Your task to perform on an android device: Open calendar and show me the first week of next month Image 0: 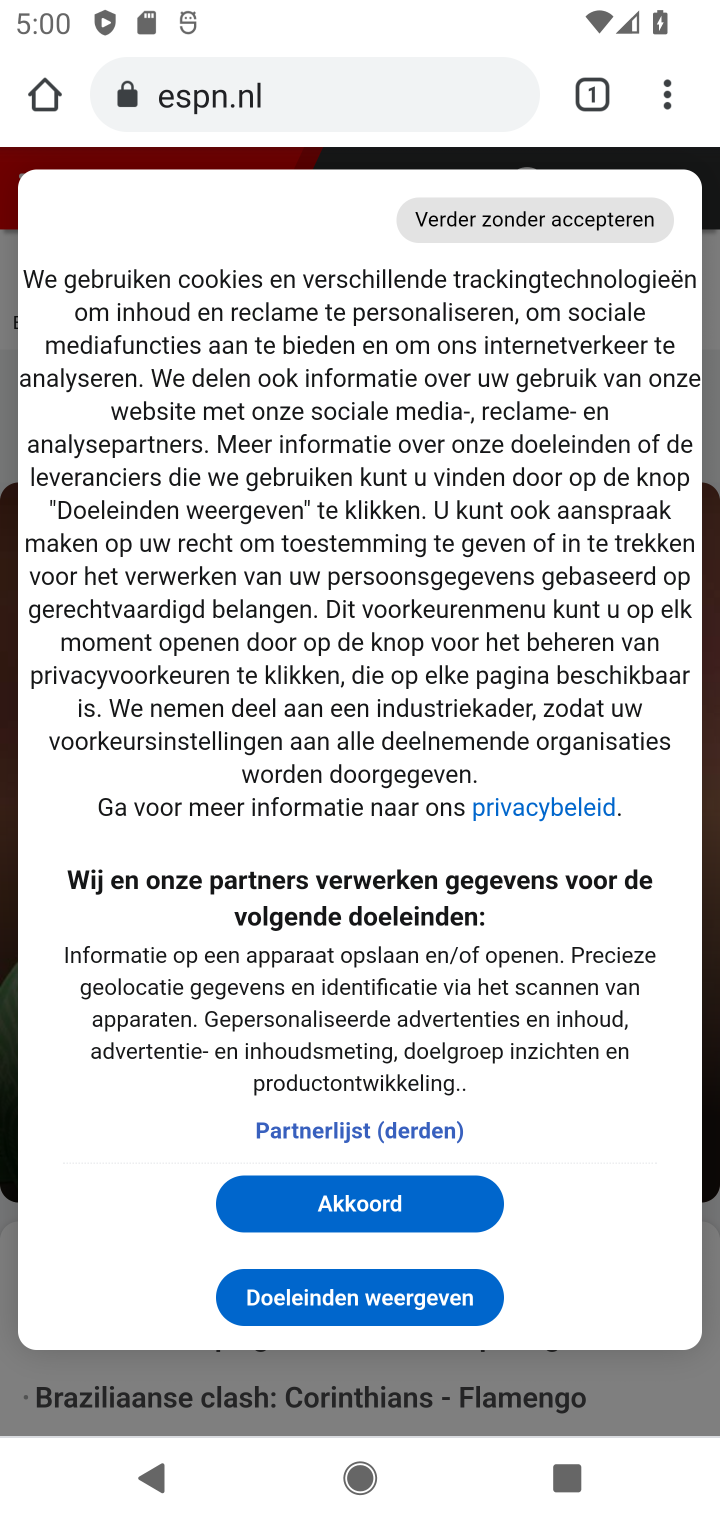
Step 0: press home button
Your task to perform on an android device: Open calendar and show me the first week of next month Image 1: 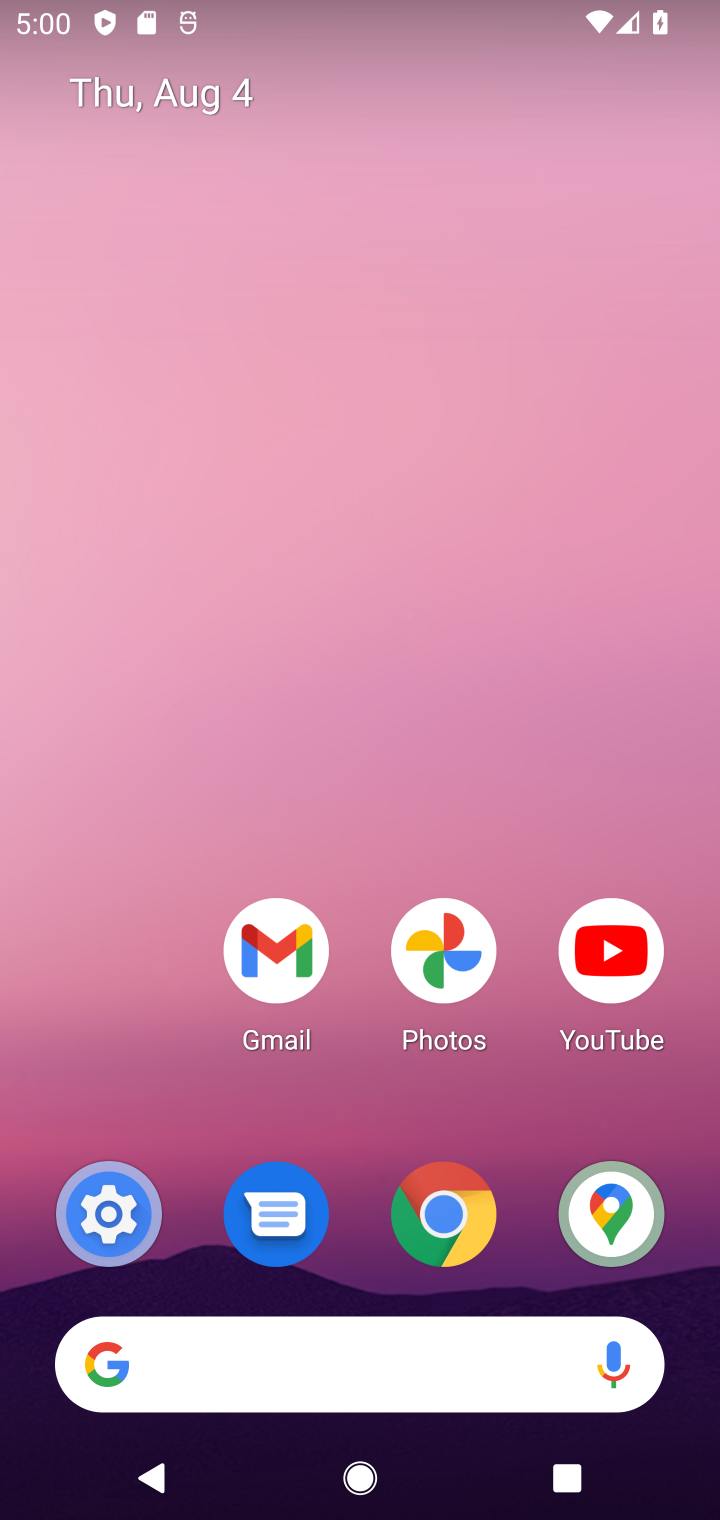
Step 1: drag from (543, 1087) to (494, 303)
Your task to perform on an android device: Open calendar and show me the first week of next month Image 2: 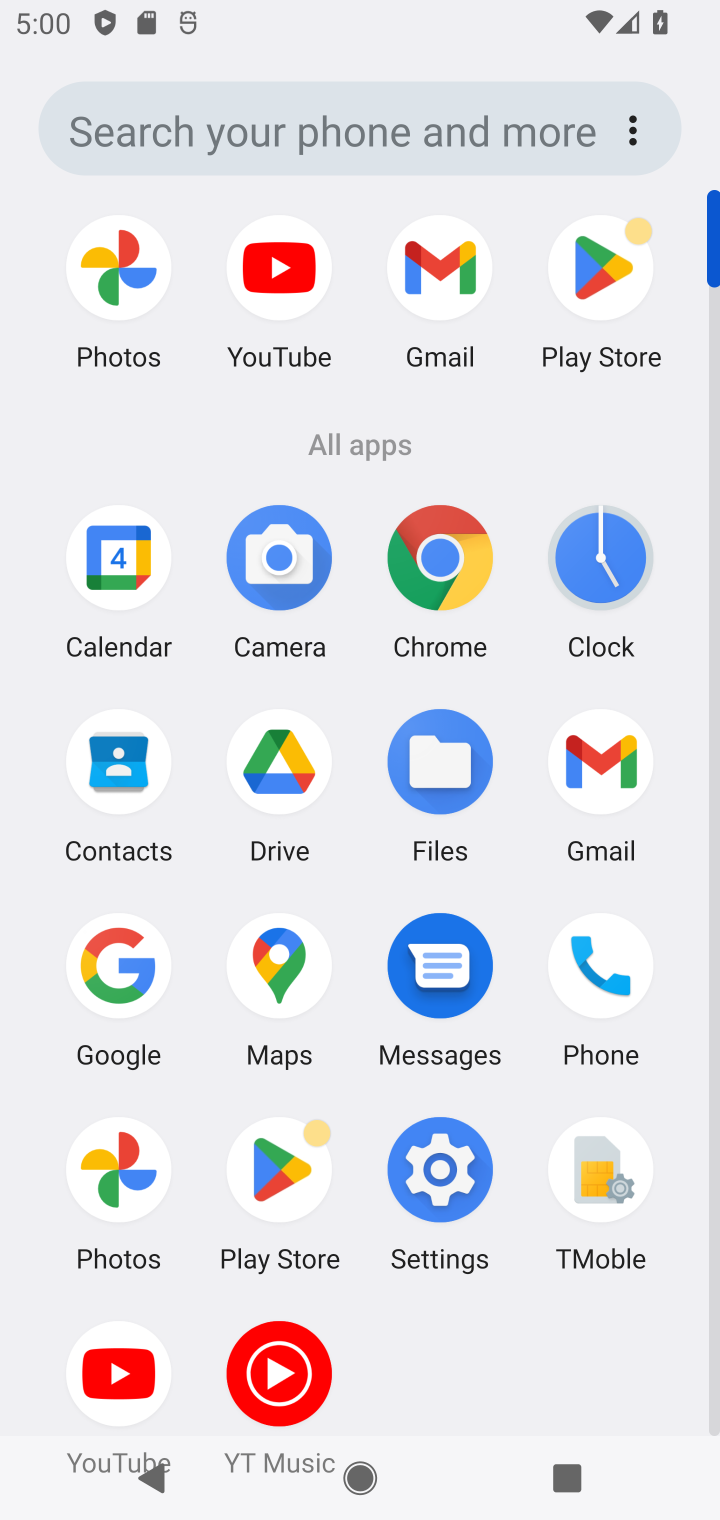
Step 2: click (133, 594)
Your task to perform on an android device: Open calendar and show me the first week of next month Image 3: 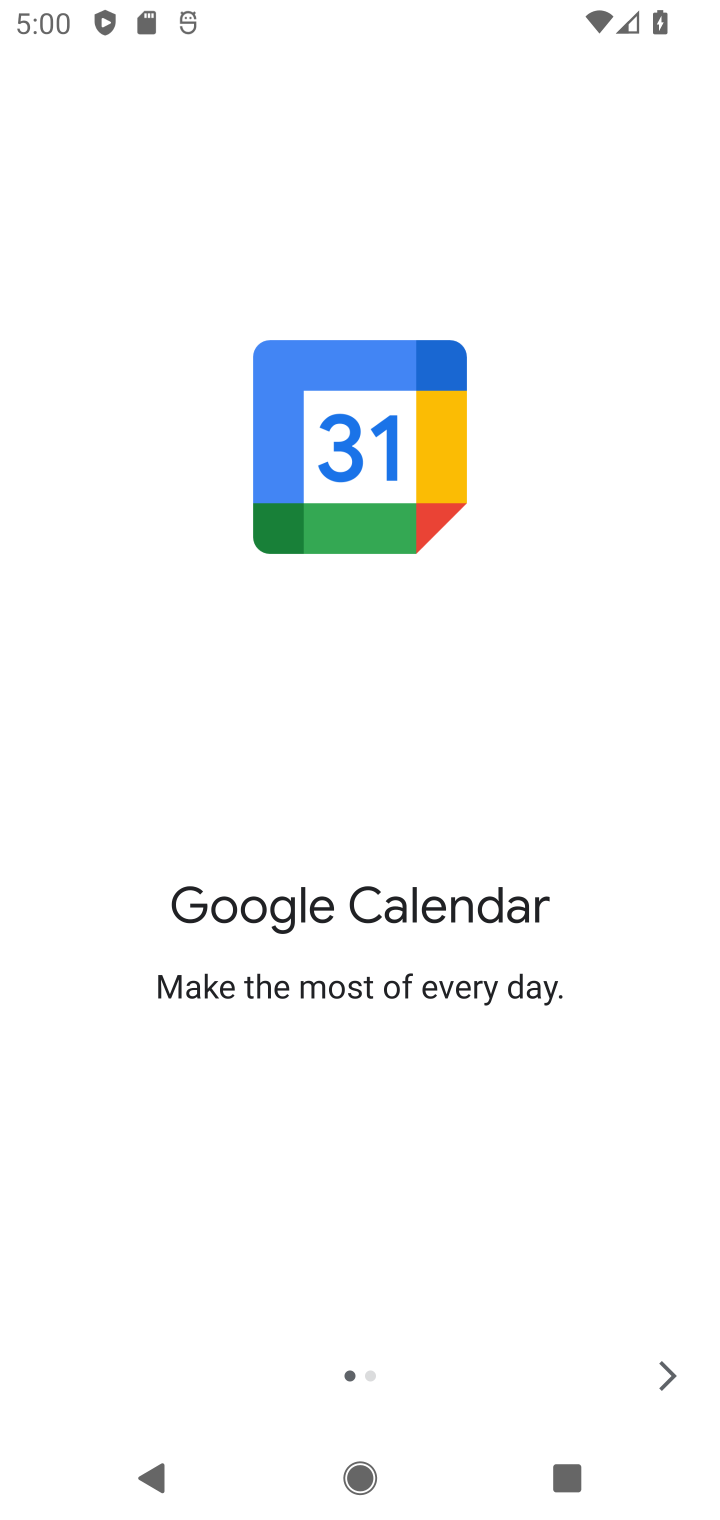
Step 3: click (647, 1380)
Your task to perform on an android device: Open calendar and show me the first week of next month Image 4: 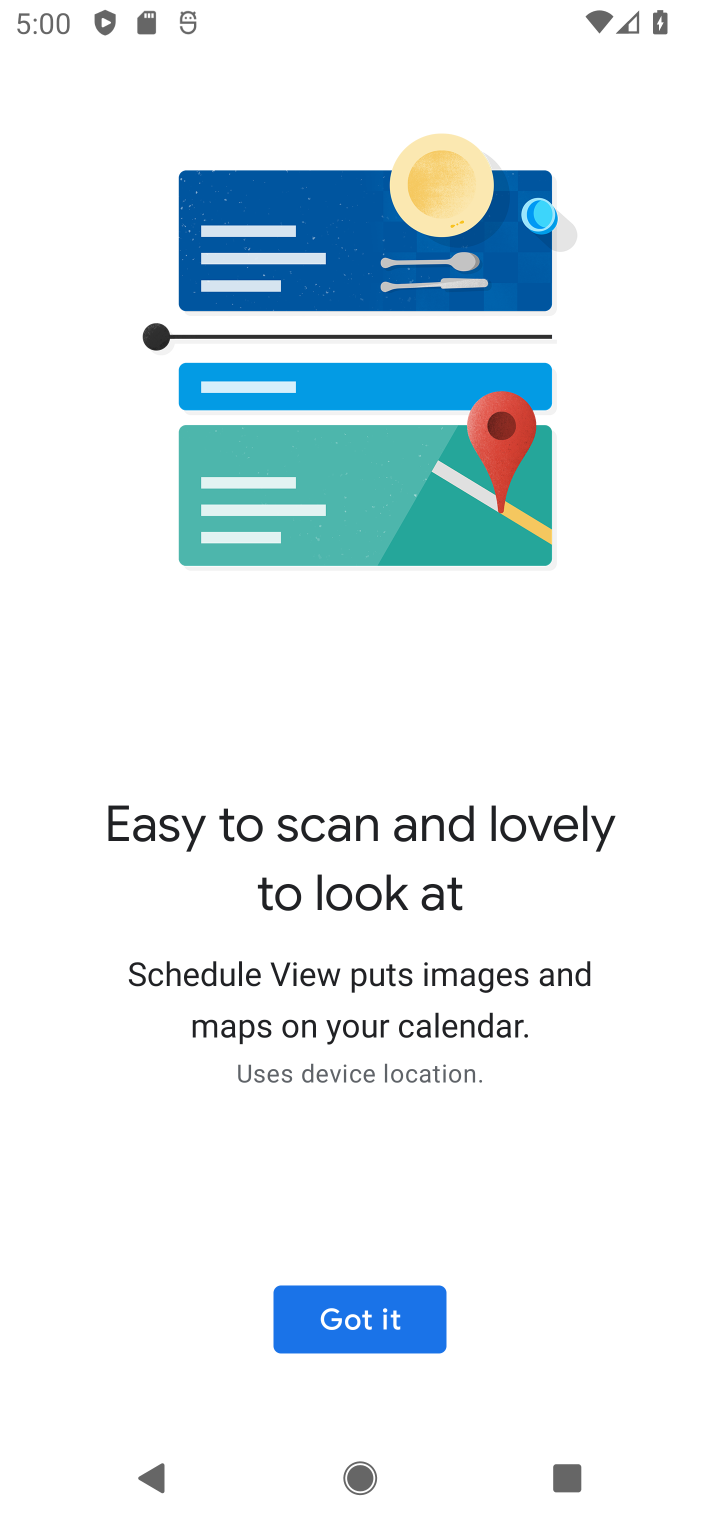
Step 4: click (392, 1338)
Your task to perform on an android device: Open calendar and show me the first week of next month Image 5: 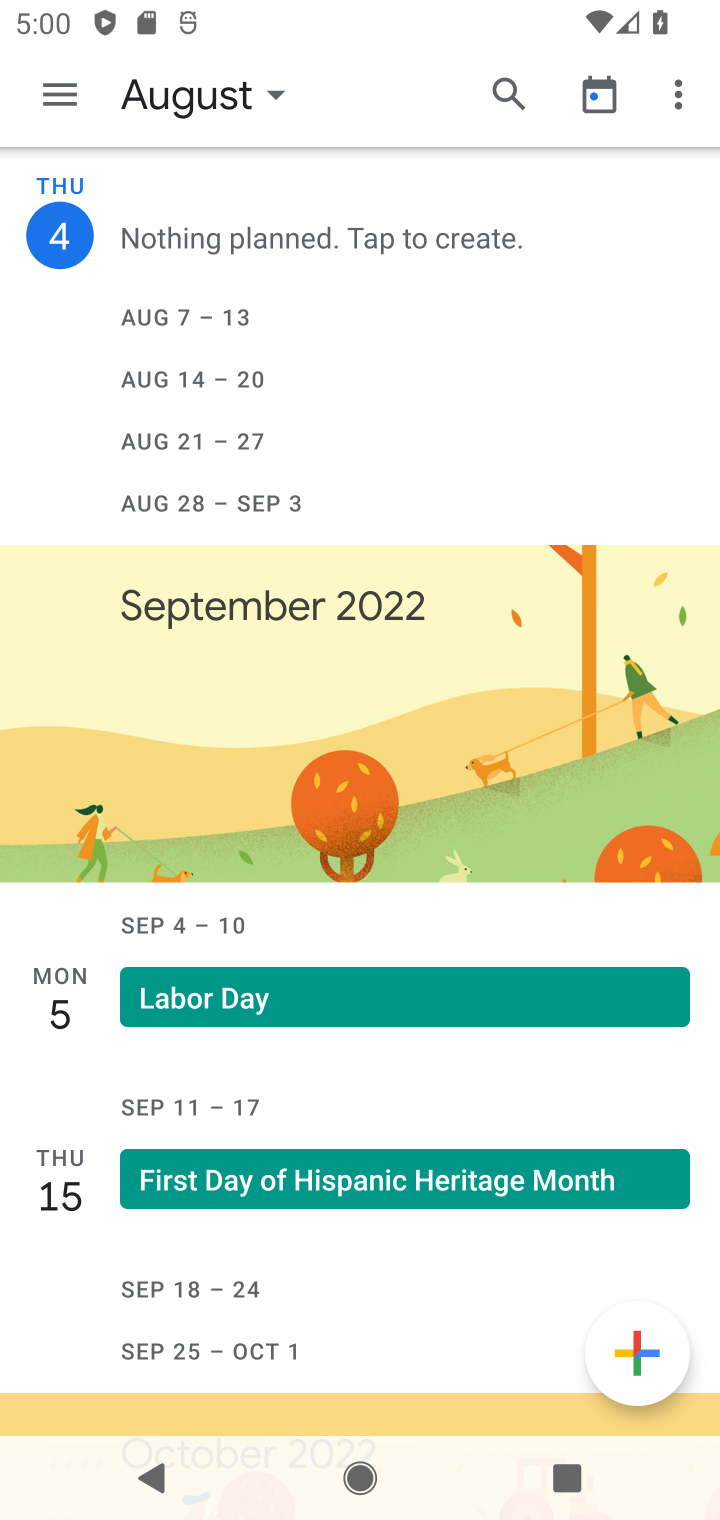
Step 5: click (56, 105)
Your task to perform on an android device: Open calendar and show me the first week of next month Image 6: 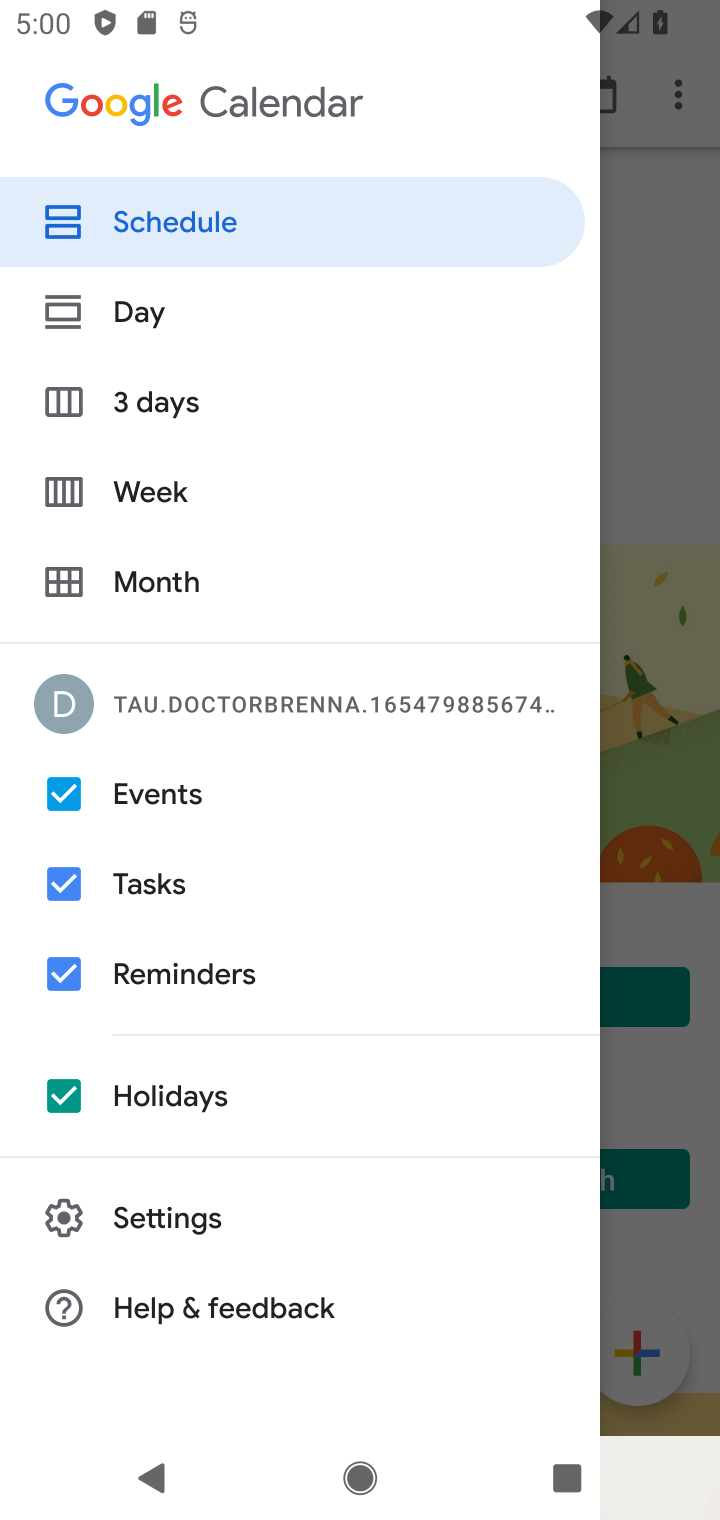
Step 6: click (182, 474)
Your task to perform on an android device: Open calendar and show me the first week of next month Image 7: 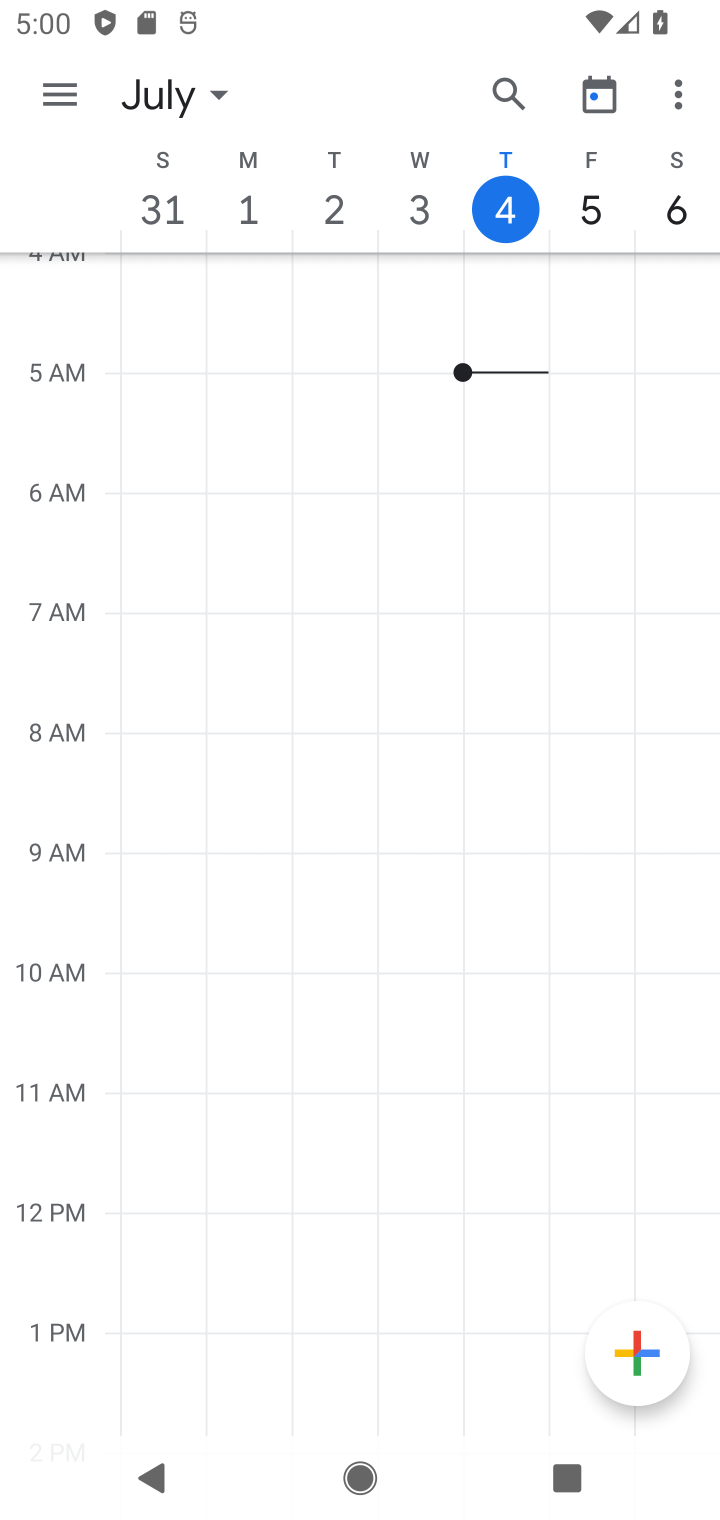
Step 7: click (205, 102)
Your task to perform on an android device: Open calendar and show me the first week of next month Image 8: 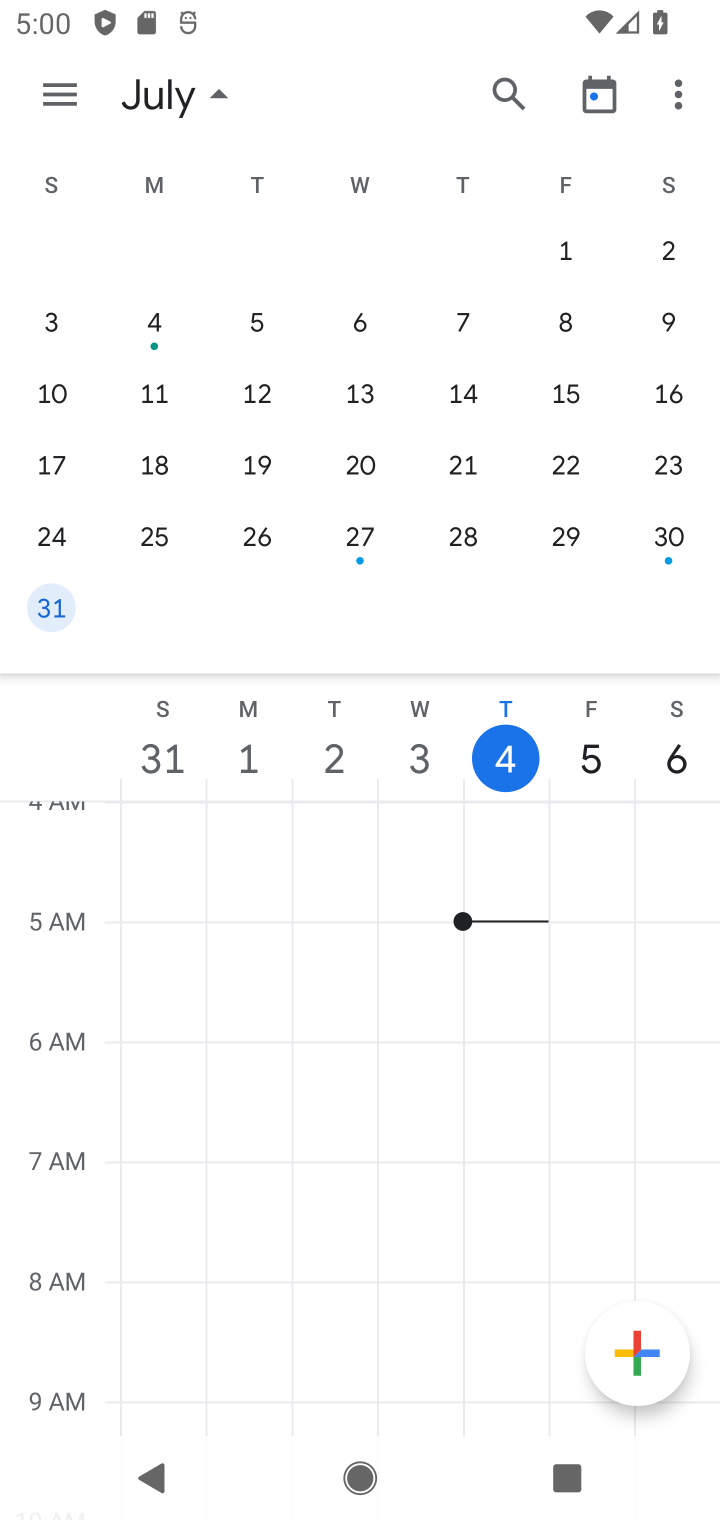
Step 8: drag from (696, 498) to (34, 403)
Your task to perform on an android device: Open calendar and show me the first week of next month Image 9: 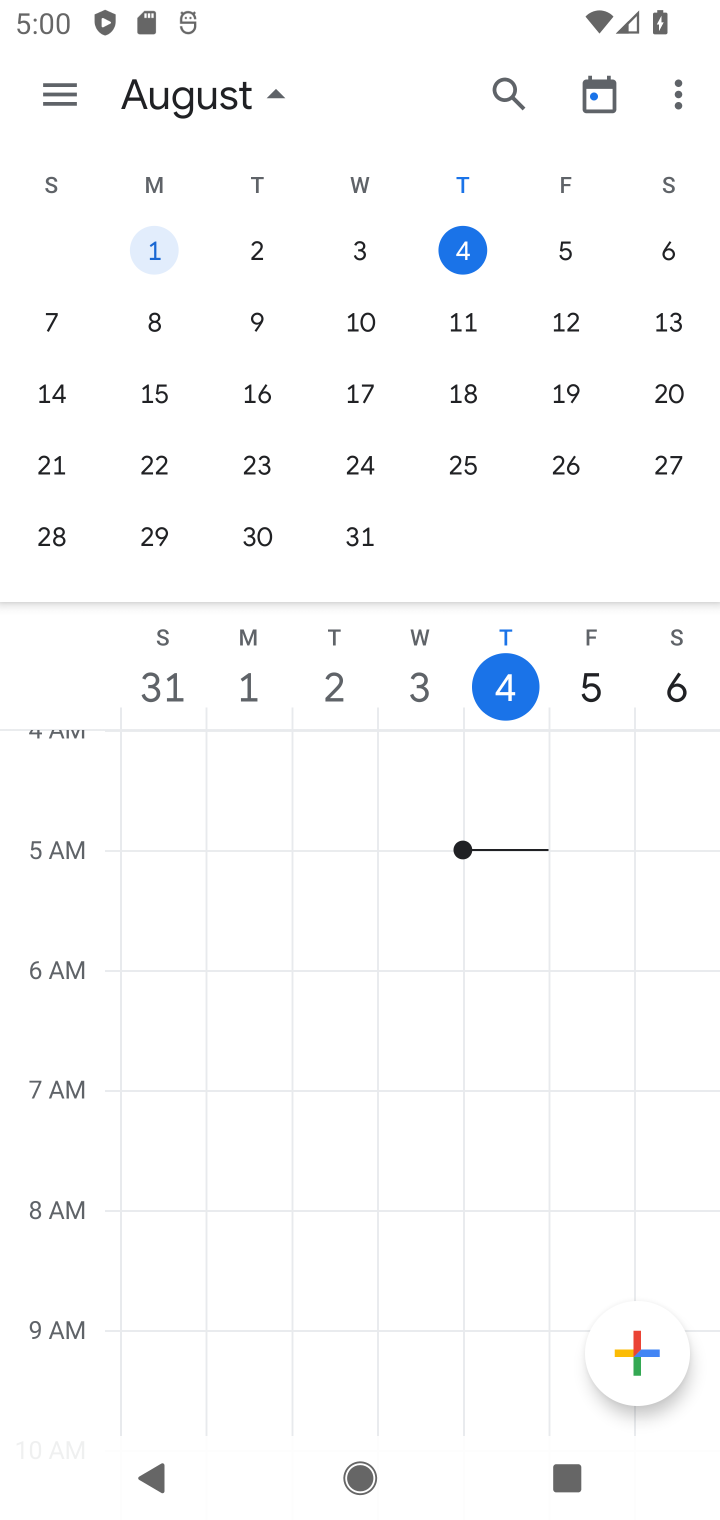
Step 9: drag from (657, 523) to (21, 490)
Your task to perform on an android device: Open calendar and show me the first week of next month Image 10: 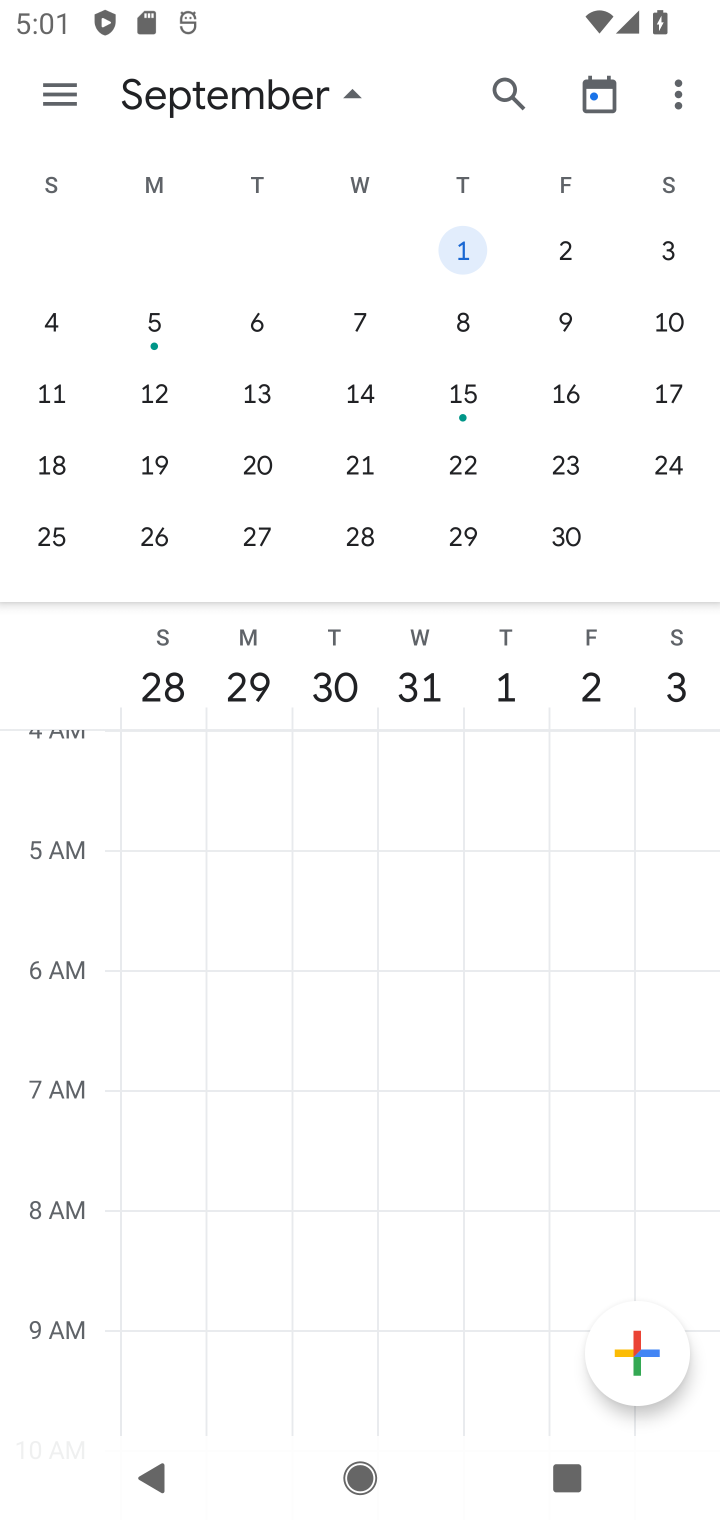
Step 10: click (356, 319)
Your task to perform on an android device: Open calendar and show me the first week of next month Image 11: 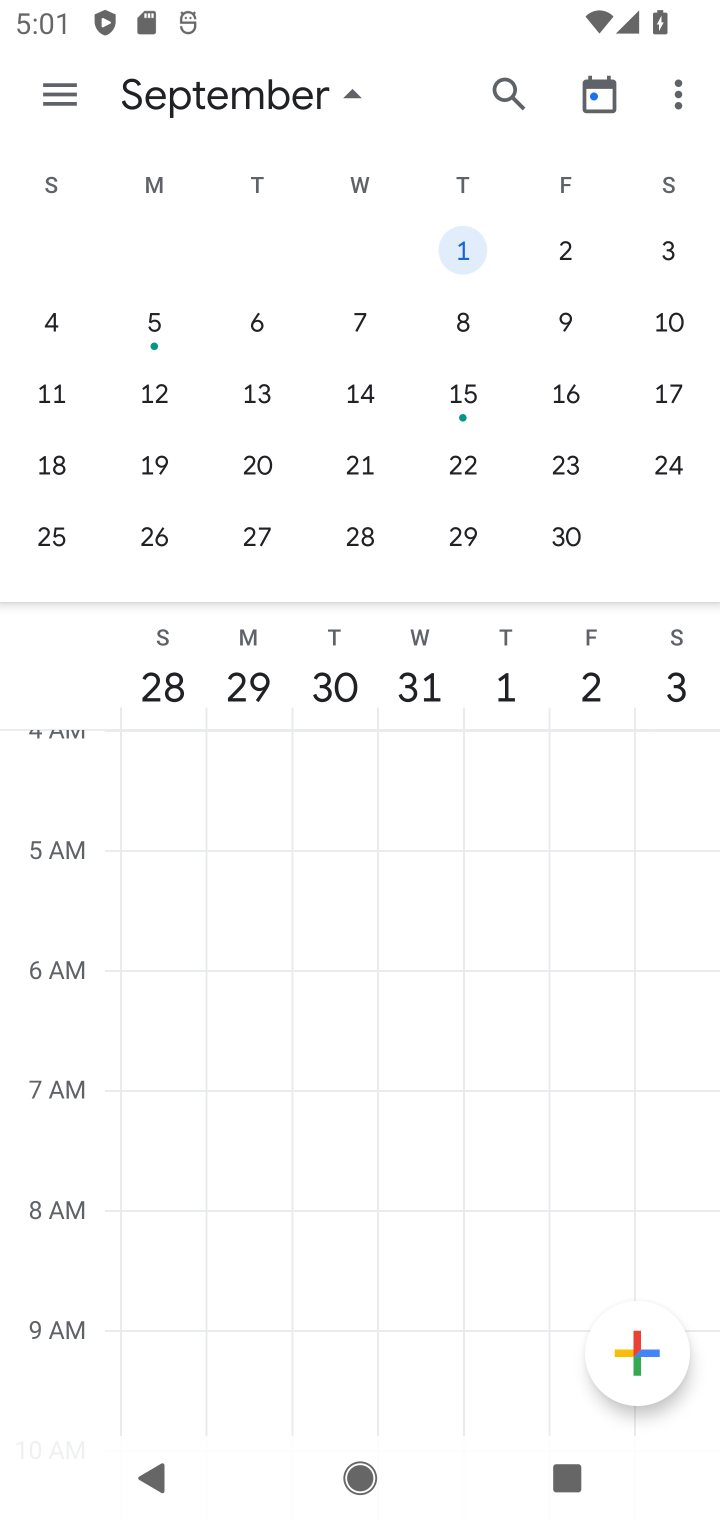
Step 11: click (146, 327)
Your task to perform on an android device: Open calendar and show me the first week of next month Image 12: 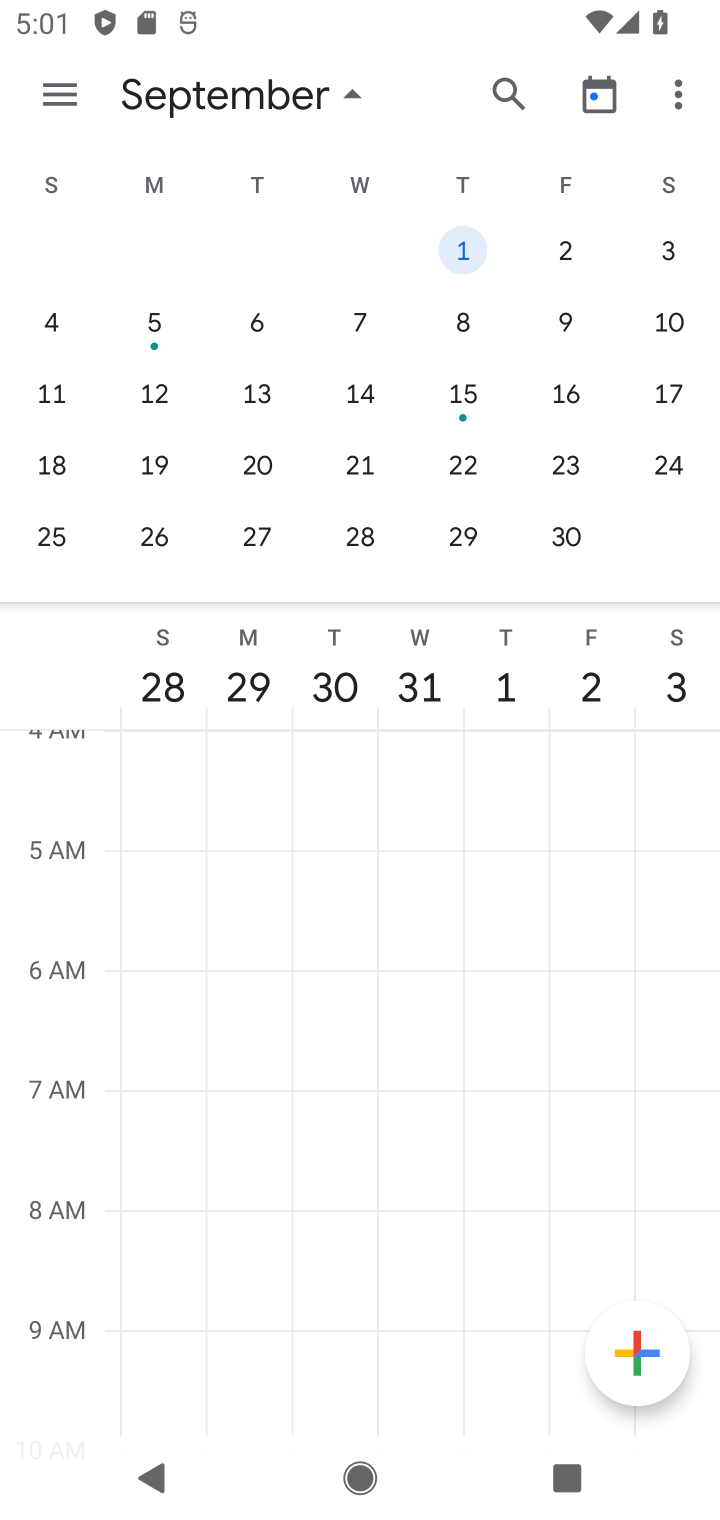
Step 12: click (160, 310)
Your task to perform on an android device: Open calendar and show me the first week of next month Image 13: 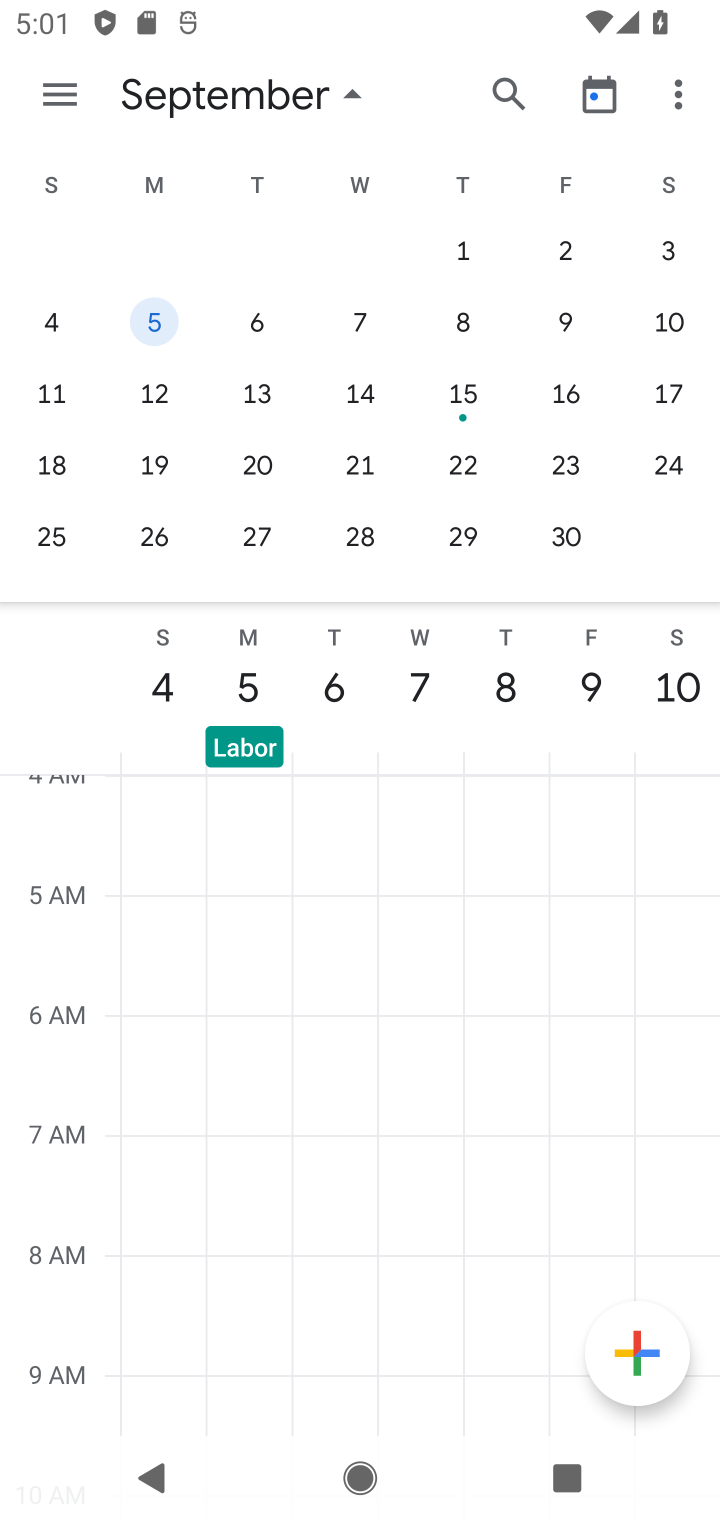
Step 13: task complete